Your task to perform on an android device: add a contact in the contacts app Image 0: 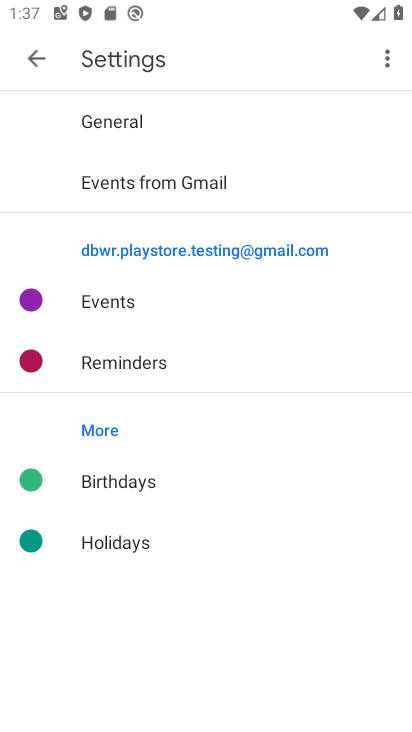
Step 0: press home button
Your task to perform on an android device: add a contact in the contacts app Image 1: 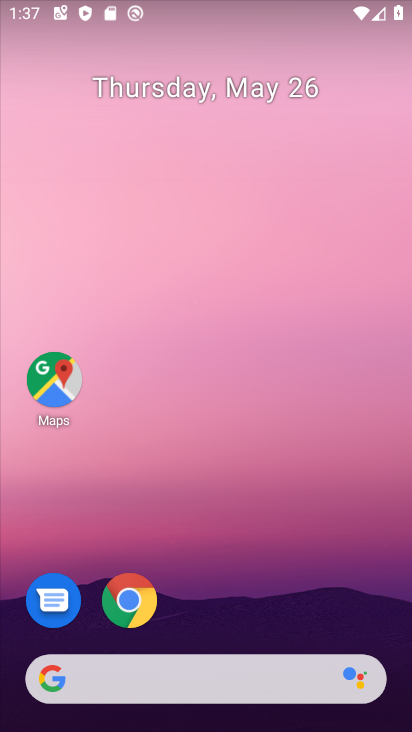
Step 1: drag from (269, 578) to (320, 68)
Your task to perform on an android device: add a contact in the contacts app Image 2: 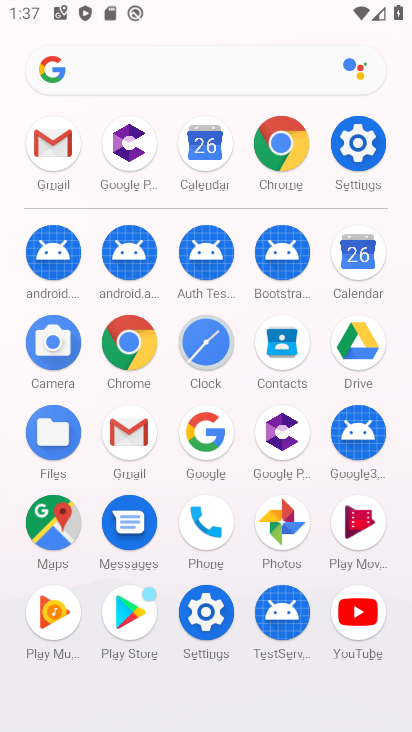
Step 2: click (287, 346)
Your task to perform on an android device: add a contact in the contacts app Image 3: 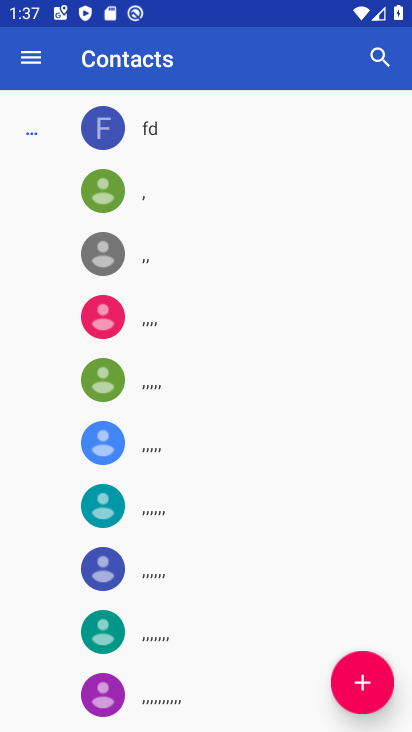
Step 3: click (354, 673)
Your task to perform on an android device: add a contact in the contacts app Image 4: 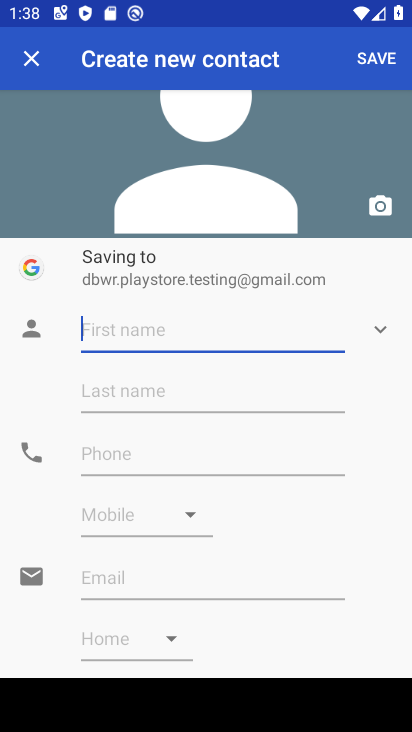
Step 4: type "bfh"
Your task to perform on an android device: add a contact in the contacts app Image 5: 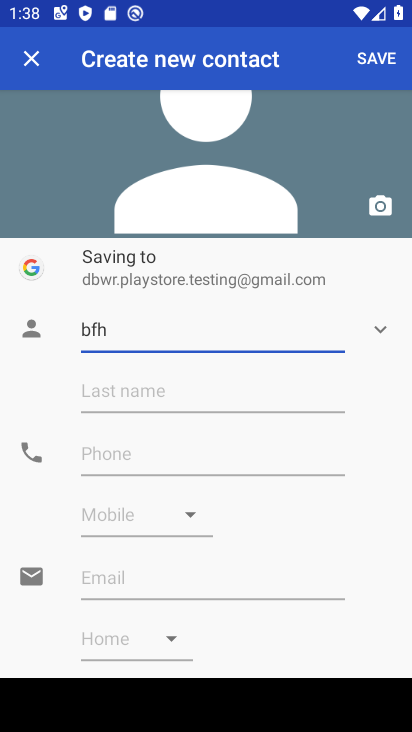
Step 5: click (98, 445)
Your task to perform on an android device: add a contact in the contacts app Image 6: 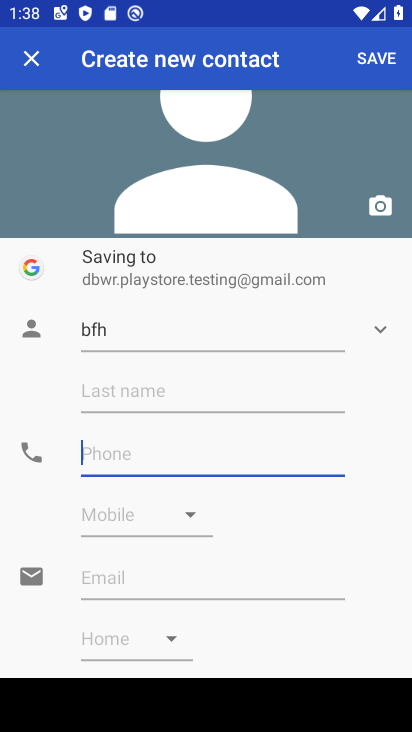
Step 6: type "8686767"
Your task to perform on an android device: add a contact in the contacts app Image 7: 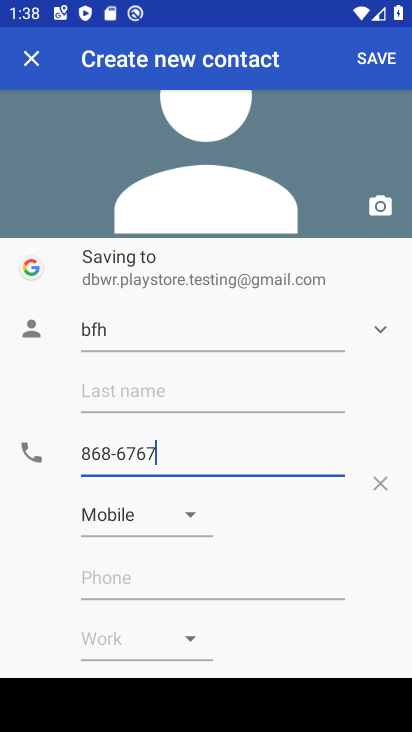
Step 7: click (373, 48)
Your task to perform on an android device: add a contact in the contacts app Image 8: 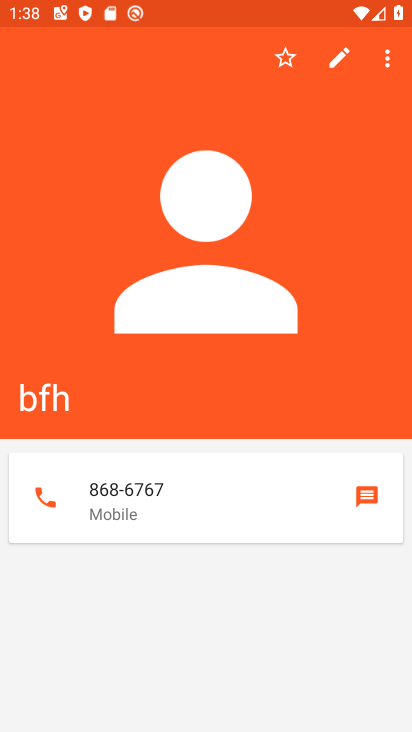
Step 8: task complete